Your task to perform on an android device: toggle javascript in the chrome app Image 0: 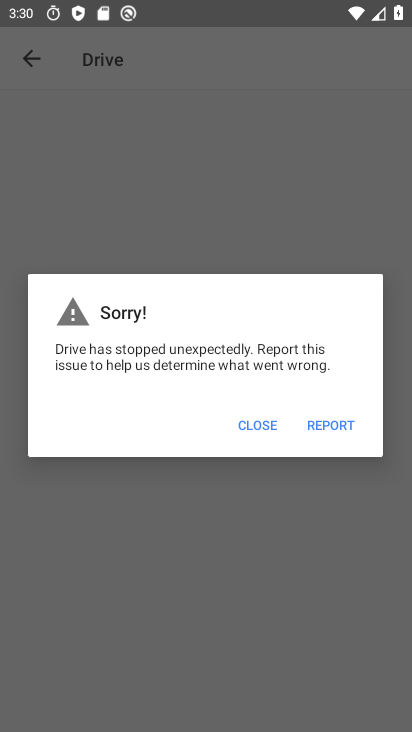
Step 0: press back button
Your task to perform on an android device: toggle javascript in the chrome app Image 1: 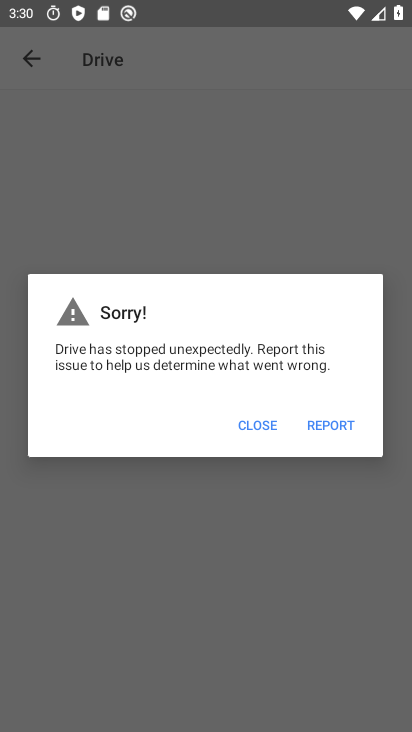
Step 1: press back button
Your task to perform on an android device: toggle javascript in the chrome app Image 2: 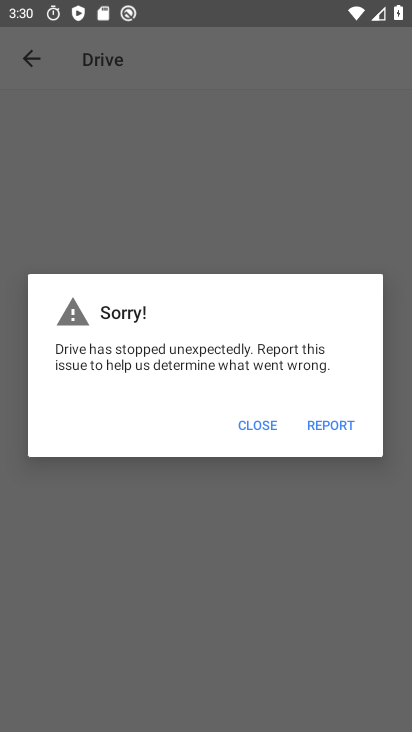
Step 2: press home button
Your task to perform on an android device: toggle javascript in the chrome app Image 3: 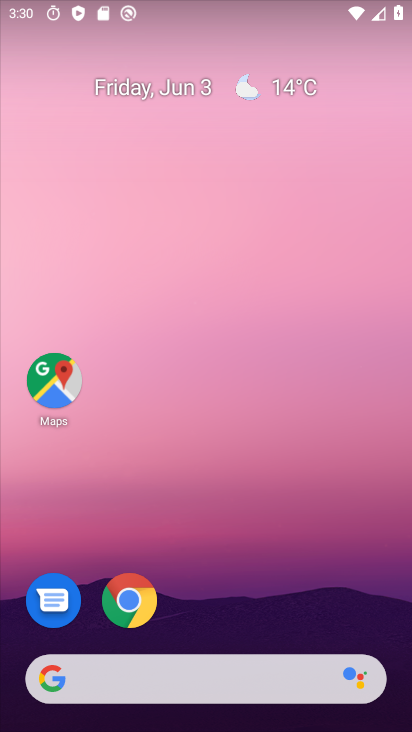
Step 3: drag from (225, 595) to (210, 38)
Your task to perform on an android device: toggle javascript in the chrome app Image 4: 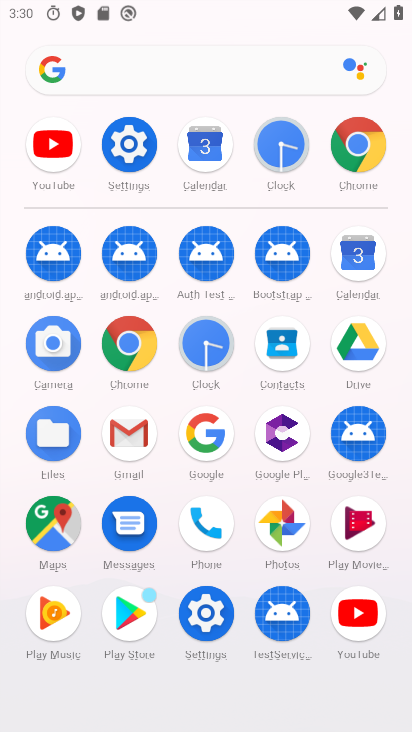
Step 4: click (6, 212)
Your task to perform on an android device: toggle javascript in the chrome app Image 5: 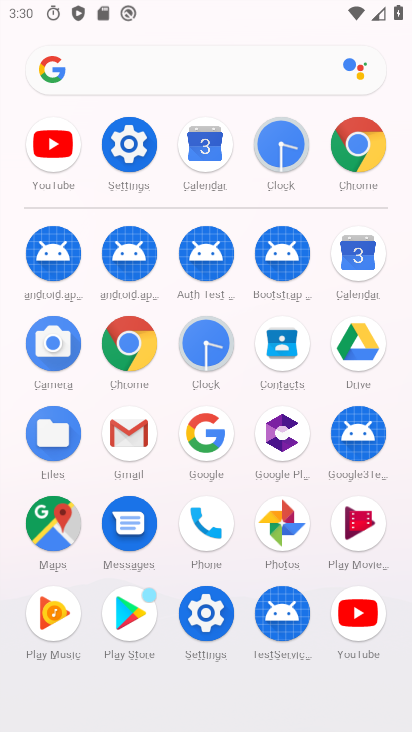
Step 5: click (126, 340)
Your task to perform on an android device: toggle javascript in the chrome app Image 6: 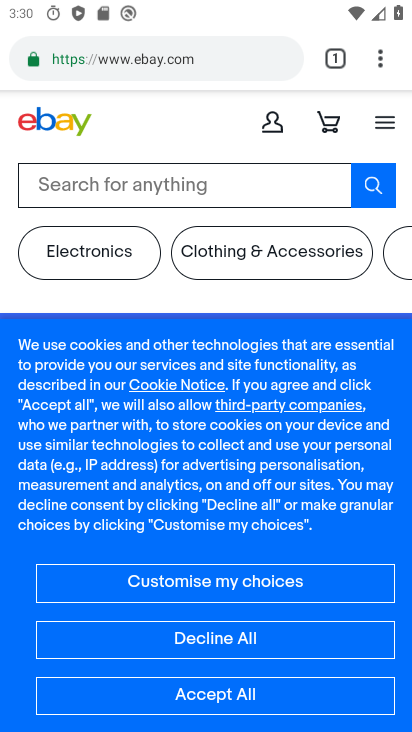
Step 6: drag from (376, 58) to (168, 607)
Your task to perform on an android device: toggle javascript in the chrome app Image 7: 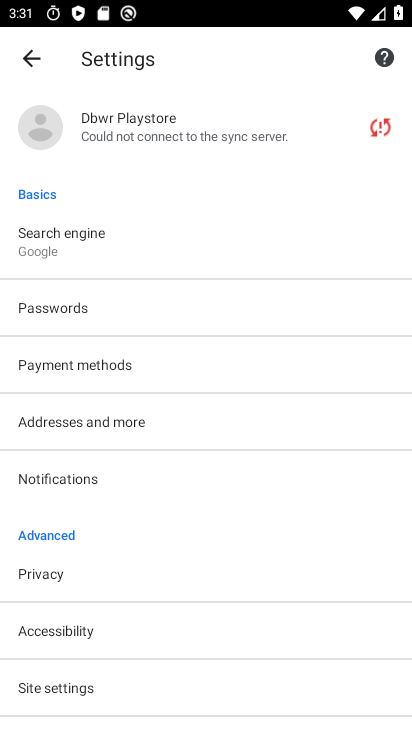
Step 7: drag from (201, 467) to (268, 127)
Your task to perform on an android device: toggle javascript in the chrome app Image 8: 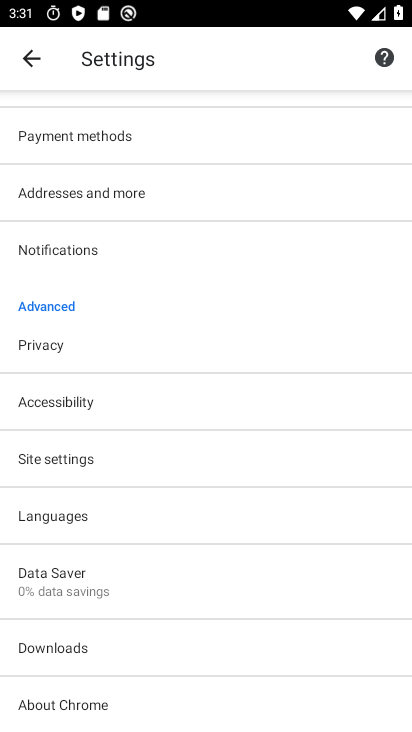
Step 8: click (83, 460)
Your task to perform on an android device: toggle javascript in the chrome app Image 9: 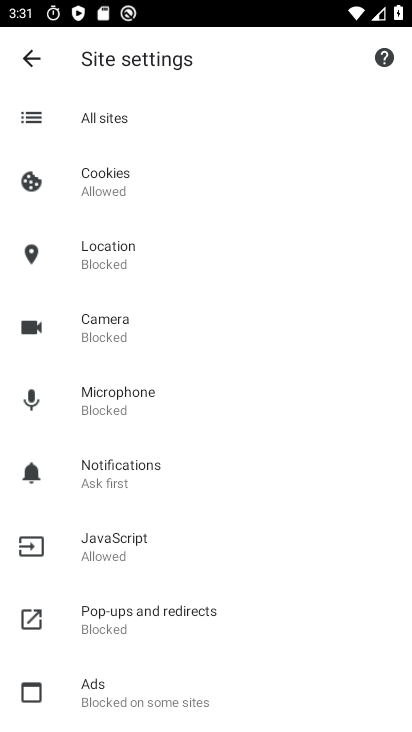
Step 9: click (134, 545)
Your task to perform on an android device: toggle javascript in the chrome app Image 10: 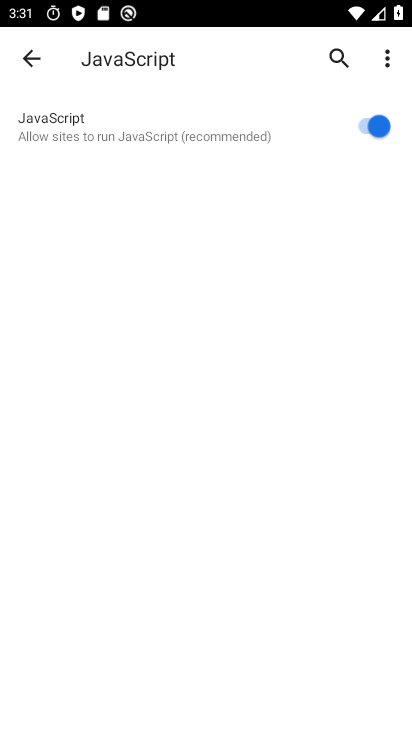
Step 10: click (367, 118)
Your task to perform on an android device: toggle javascript in the chrome app Image 11: 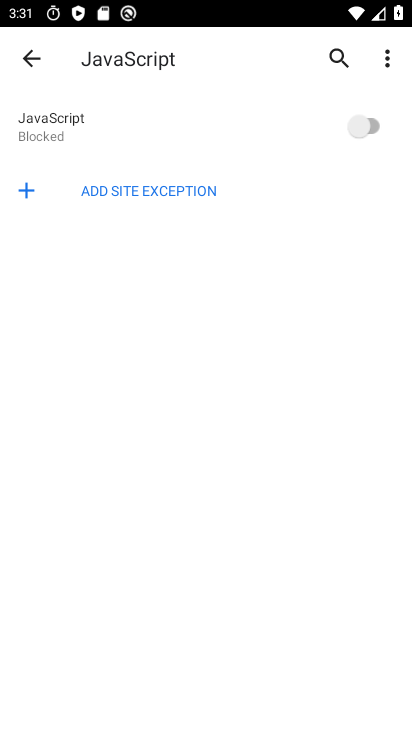
Step 11: task complete